Your task to perform on an android device: turn off airplane mode Image 0: 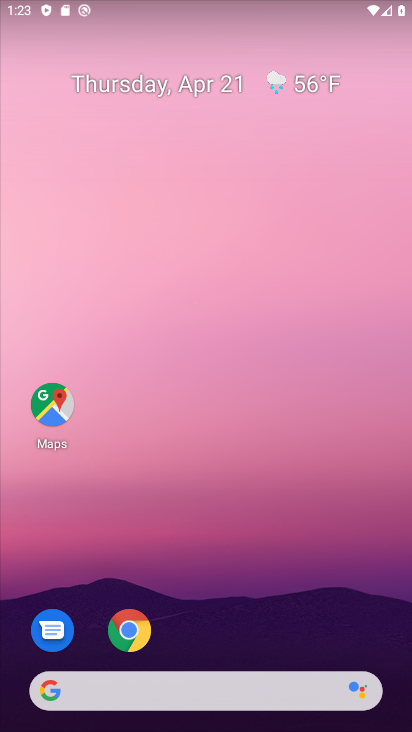
Step 0: drag from (199, 677) to (176, 68)
Your task to perform on an android device: turn off airplane mode Image 1: 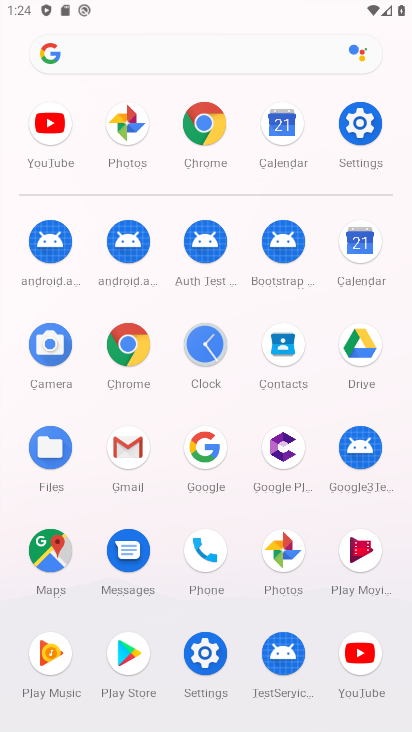
Step 1: click (350, 129)
Your task to perform on an android device: turn off airplane mode Image 2: 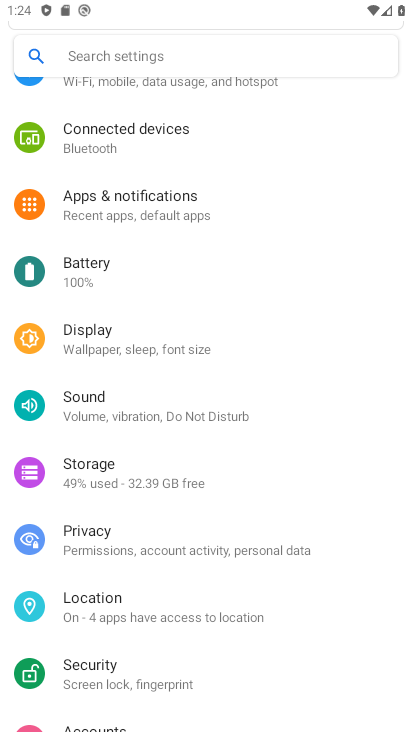
Step 2: drag from (215, 111) to (232, 552)
Your task to perform on an android device: turn off airplane mode Image 3: 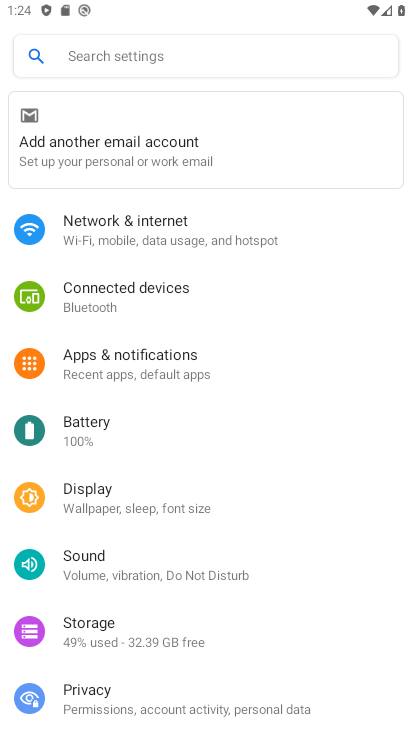
Step 3: click (166, 234)
Your task to perform on an android device: turn off airplane mode Image 4: 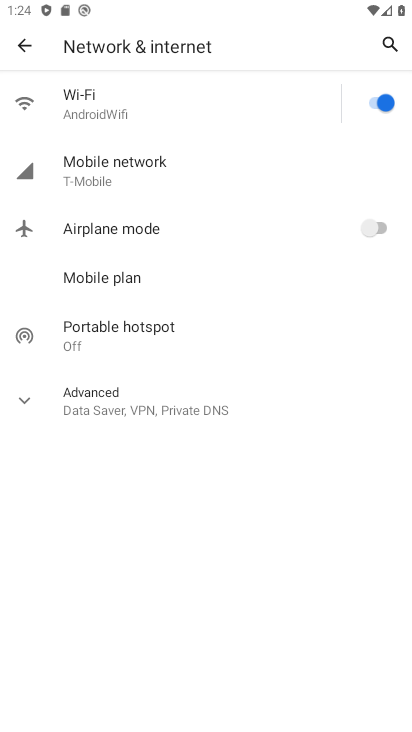
Step 4: task complete